Your task to perform on an android device: open app "Messenger Lite" (install if not already installed) Image 0: 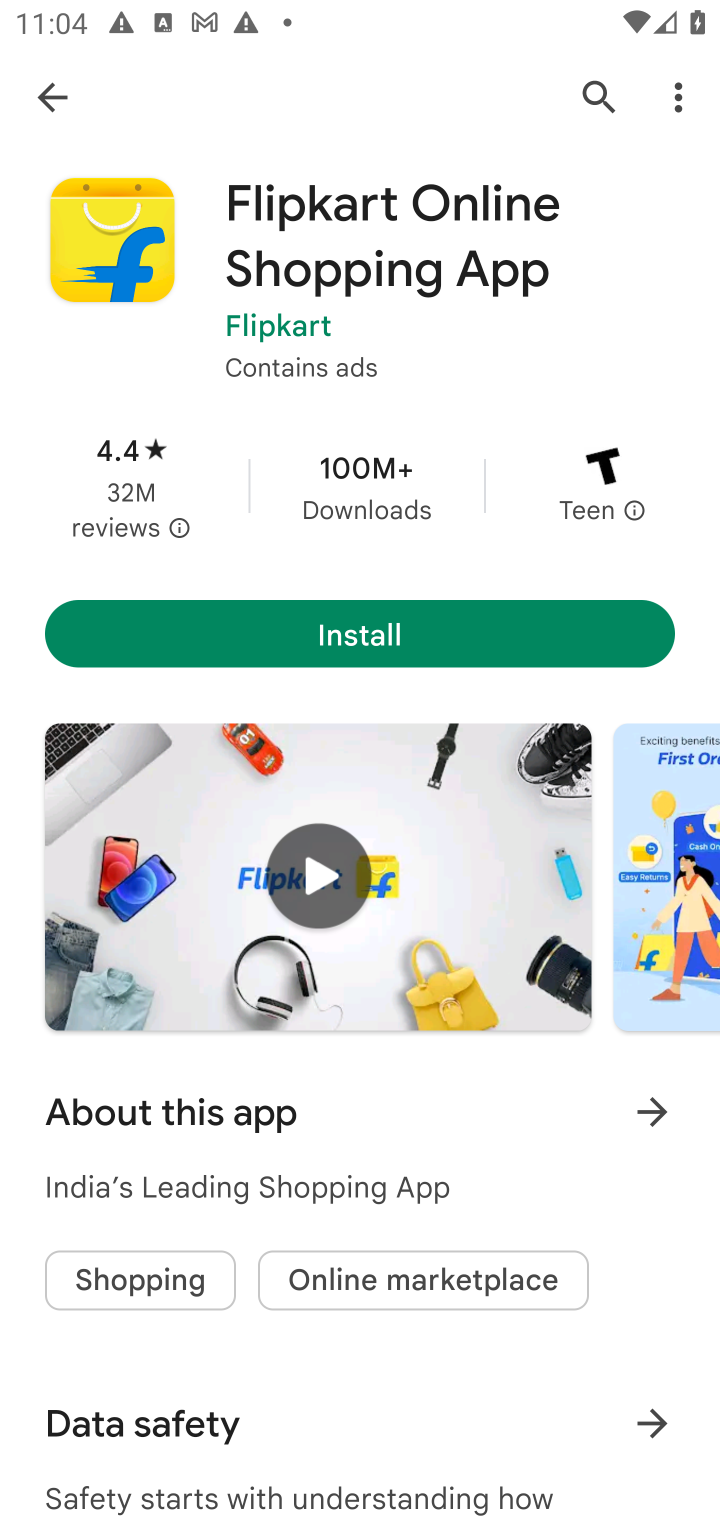
Step 0: press home button
Your task to perform on an android device: open app "Messenger Lite" (install if not already installed) Image 1: 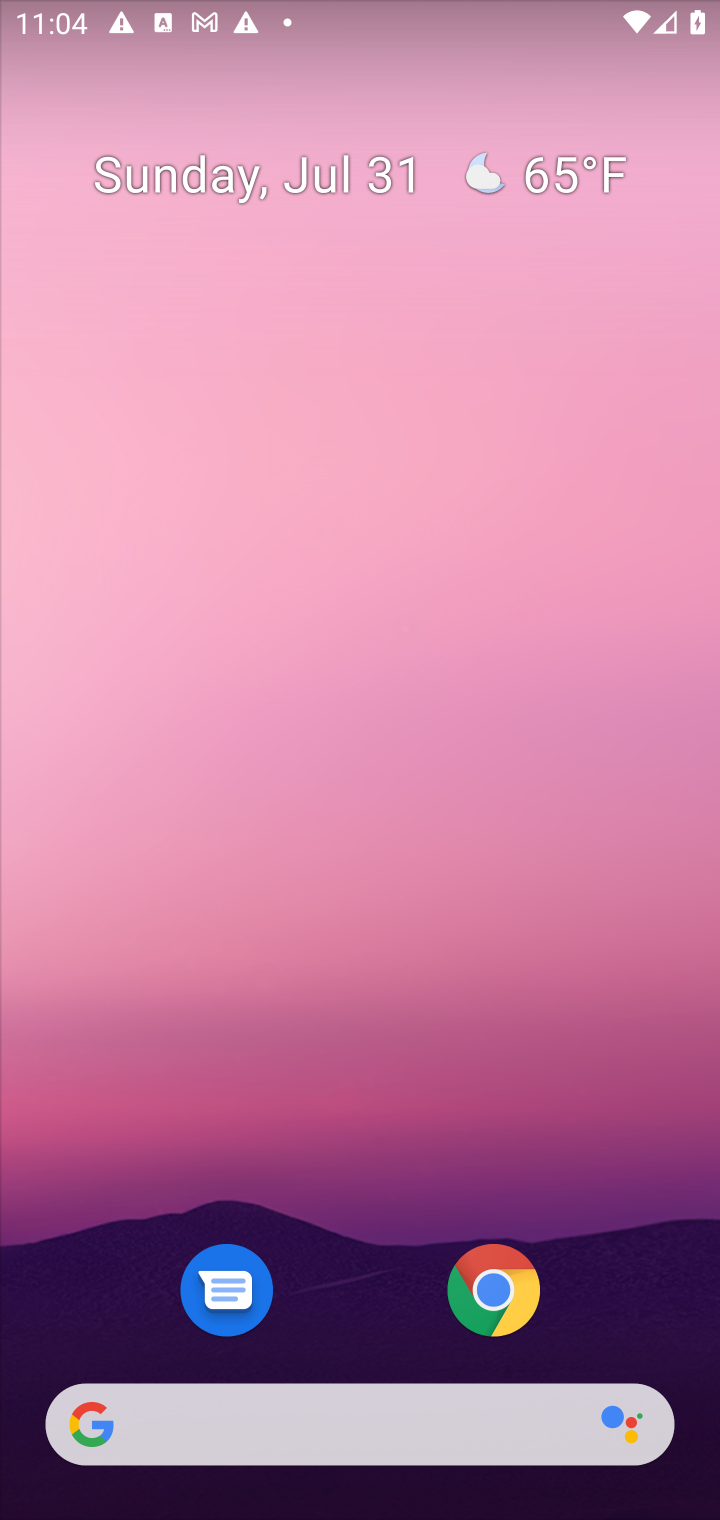
Step 1: drag from (633, 1248) to (572, 153)
Your task to perform on an android device: open app "Messenger Lite" (install if not already installed) Image 2: 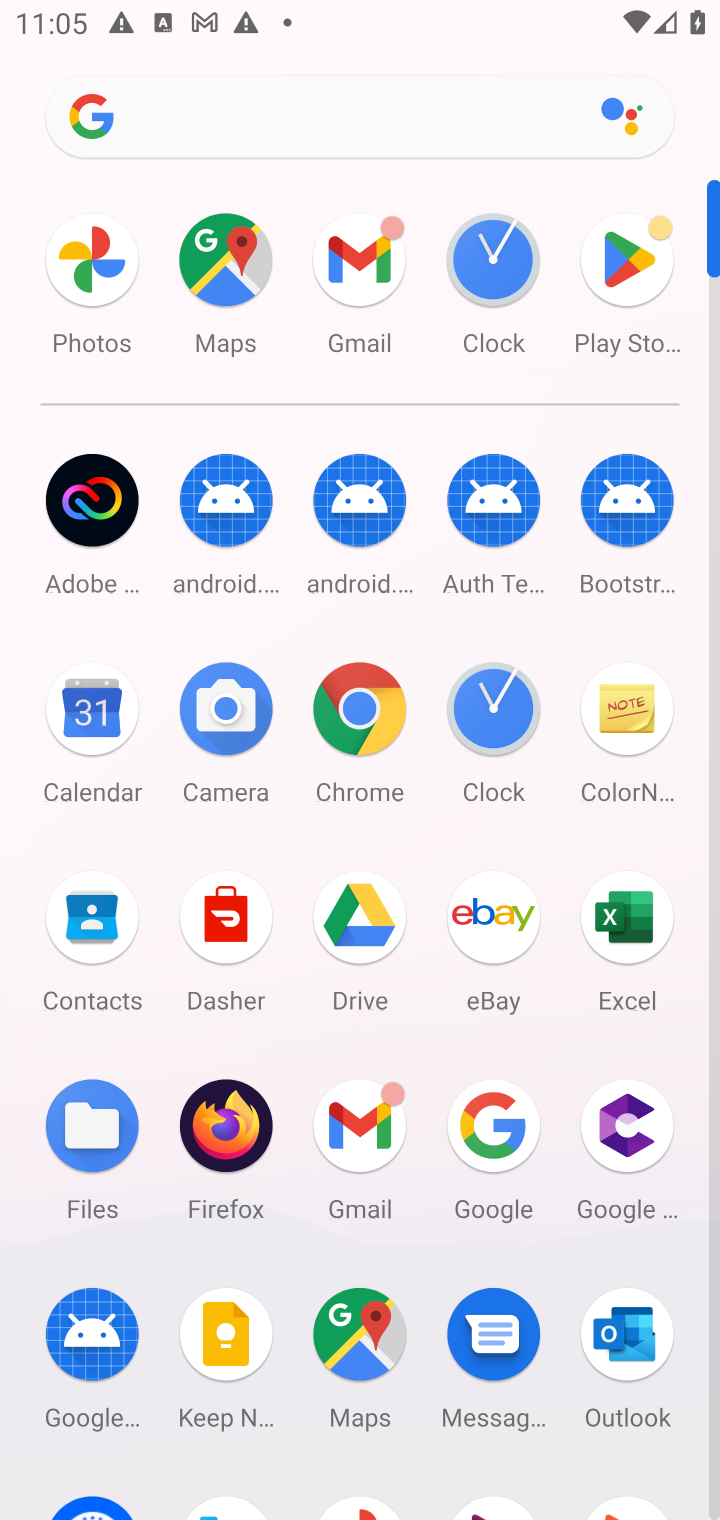
Step 2: click (641, 276)
Your task to perform on an android device: open app "Messenger Lite" (install if not already installed) Image 3: 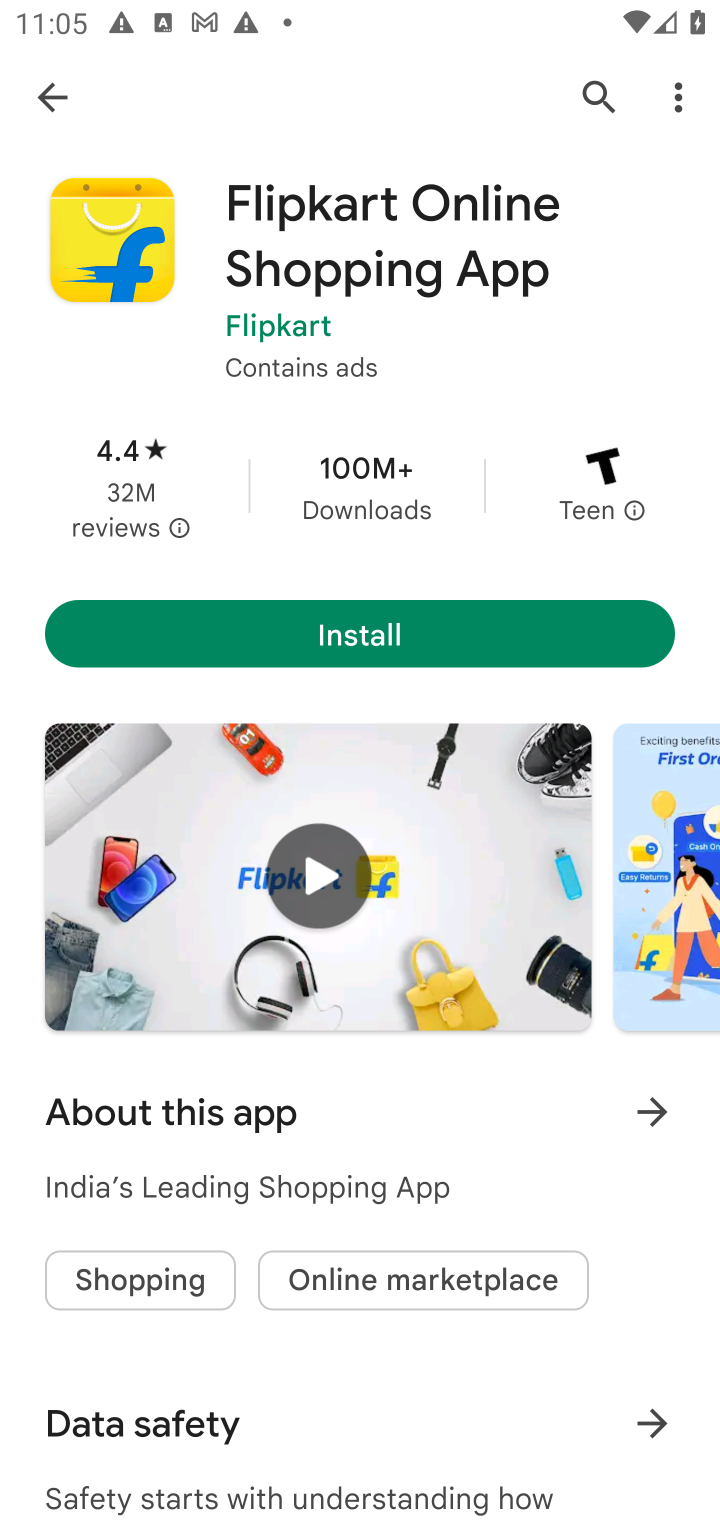
Step 3: click (606, 92)
Your task to perform on an android device: open app "Messenger Lite" (install if not already installed) Image 4: 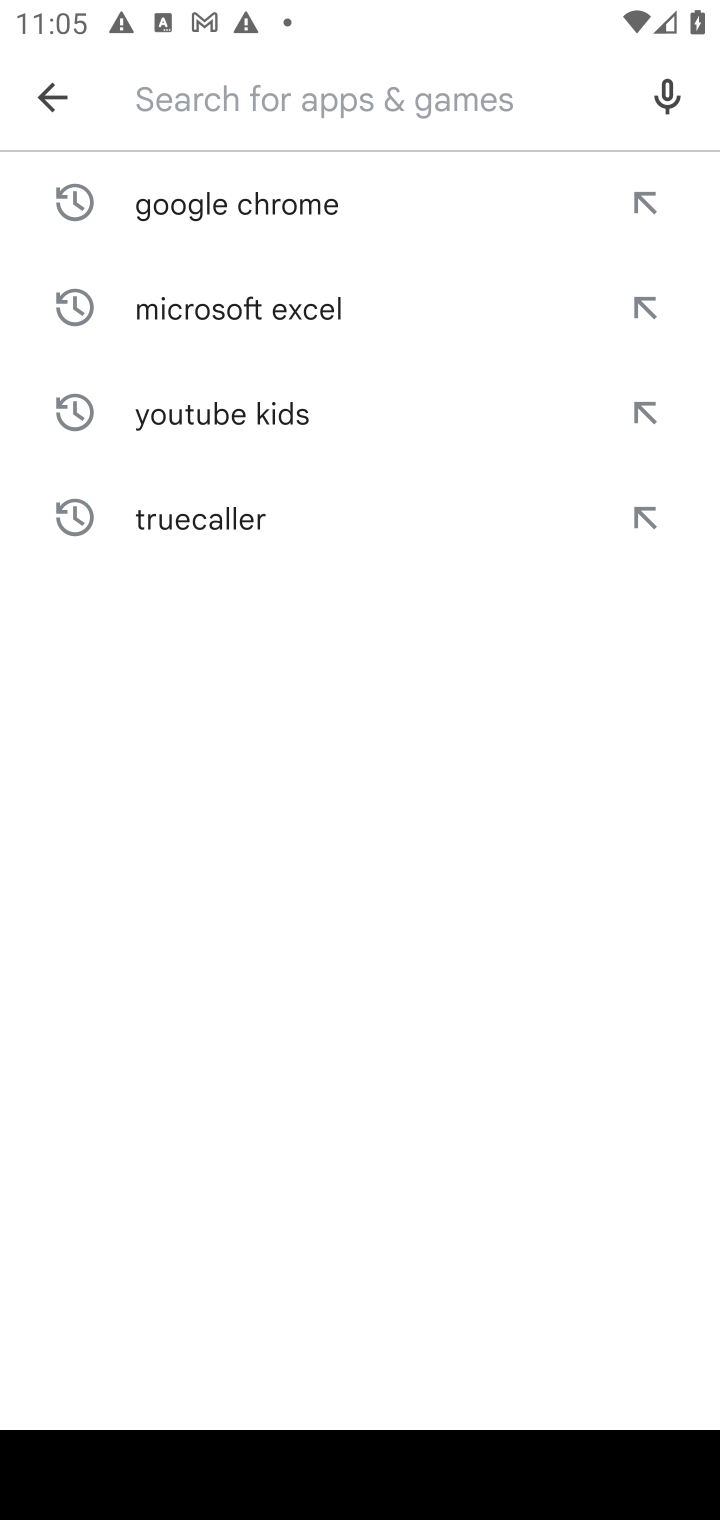
Step 4: click (467, 99)
Your task to perform on an android device: open app "Messenger Lite" (install if not already installed) Image 5: 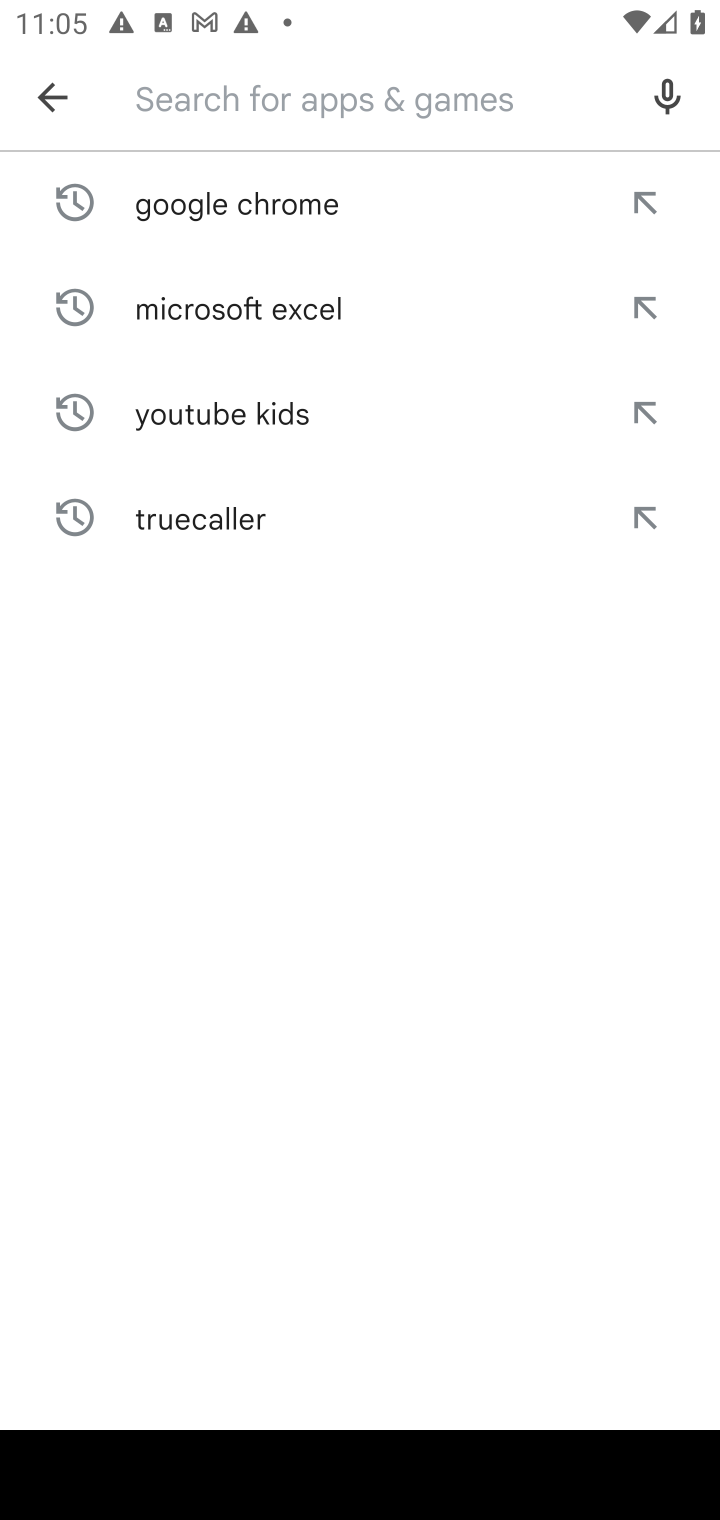
Step 5: type "messenger lite"
Your task to perform on an android device: open app "Messenger Lite" (install if not already installed) Image 6: 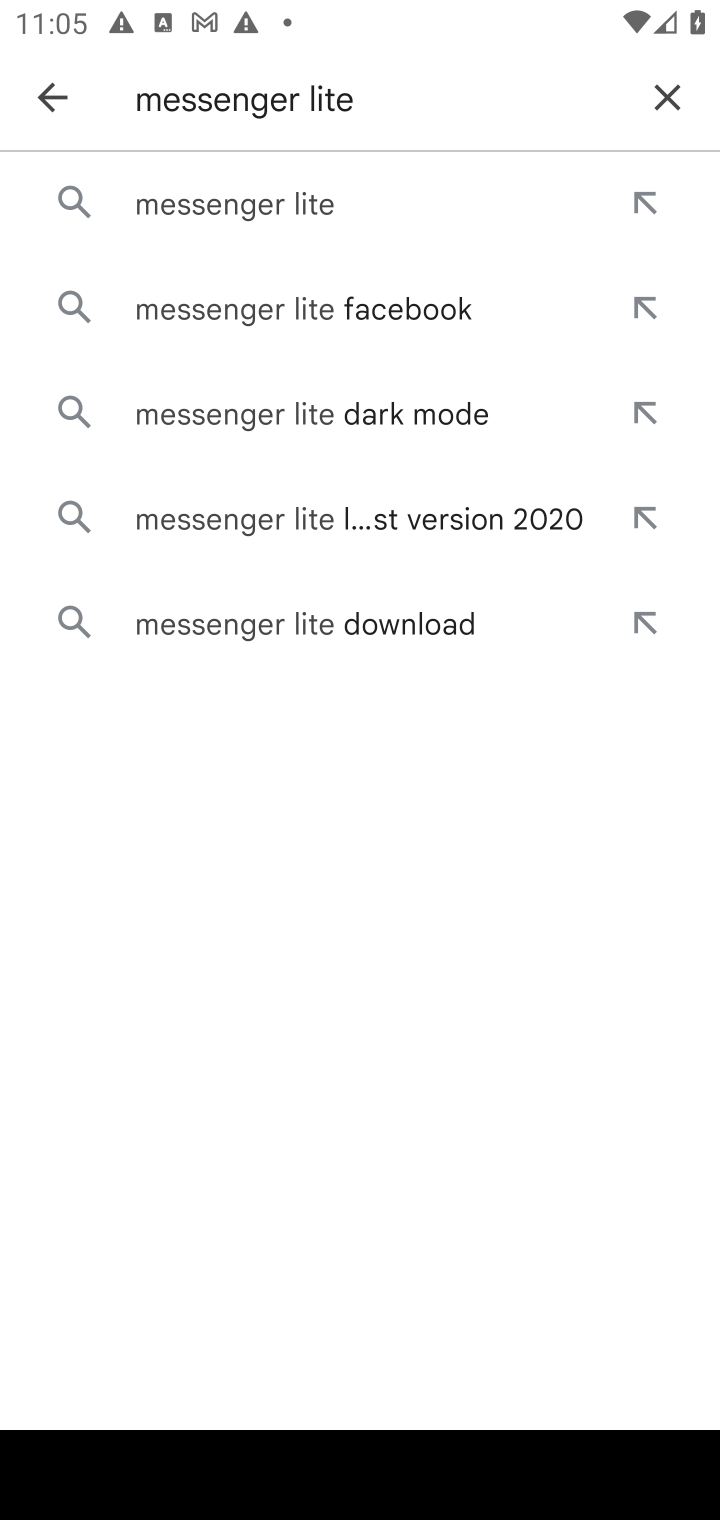
Step 6: click (427, 186)
Your task to perform on an android device: open app "Messenger Lite" (install if not already installed) Image 7: 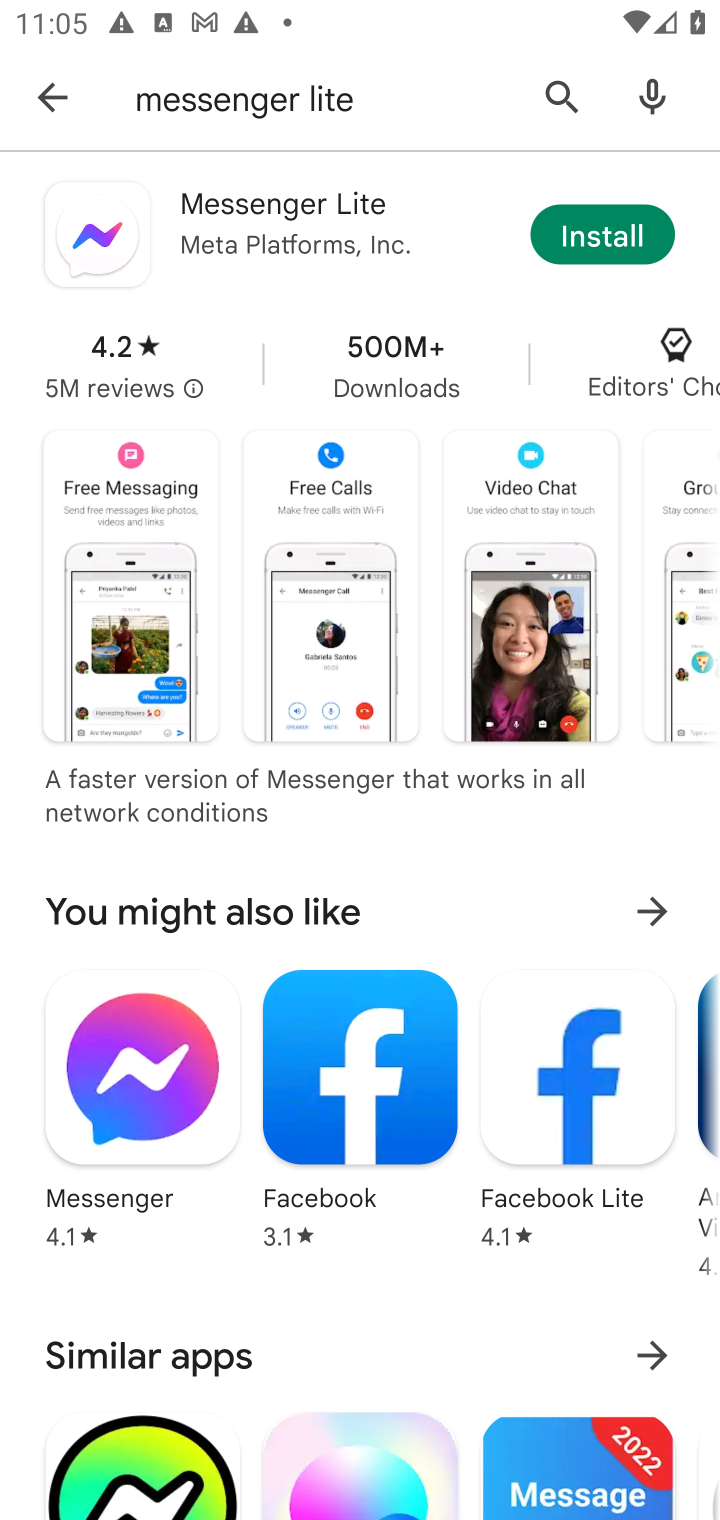
Step 7: click (610, 240)
Your task to perform on an android device: open app "Messenger Lite" (install if not already installed) Image 8: 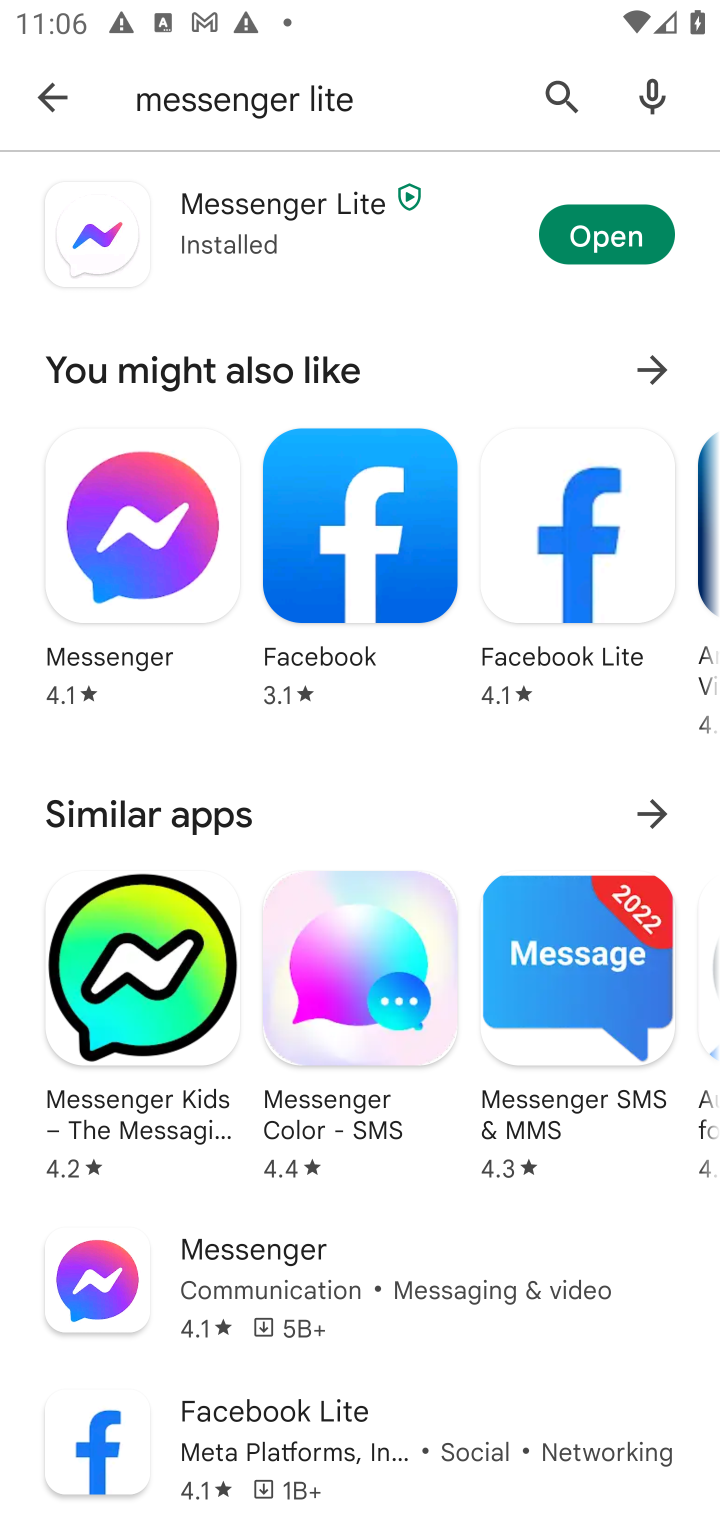
Step 8: click (611, 228)
Your task to perform on an android device: open app "Messenger Lite" (install if not already installed) Image 9: 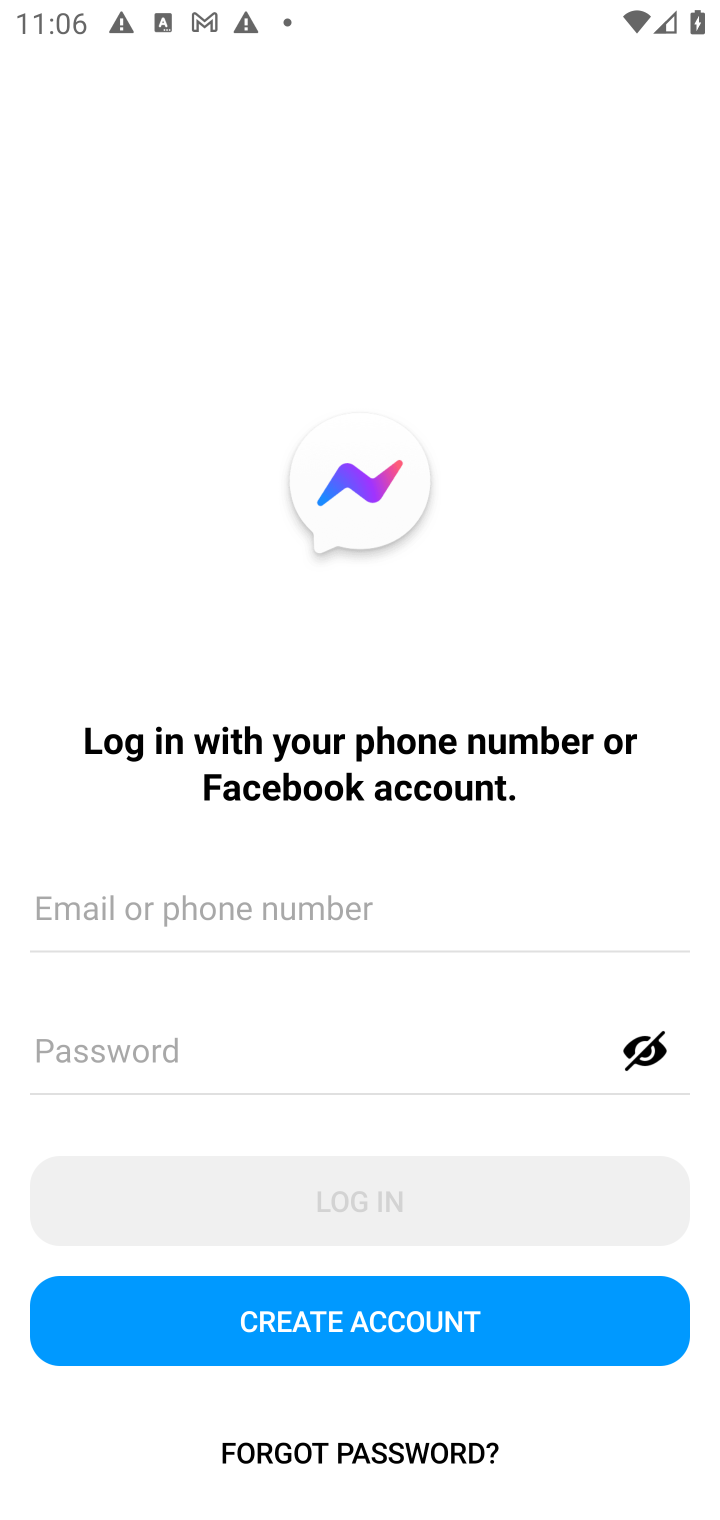
Step 9: task complete